Your task to perform on an android device: change the upload size in google photos Image 0: 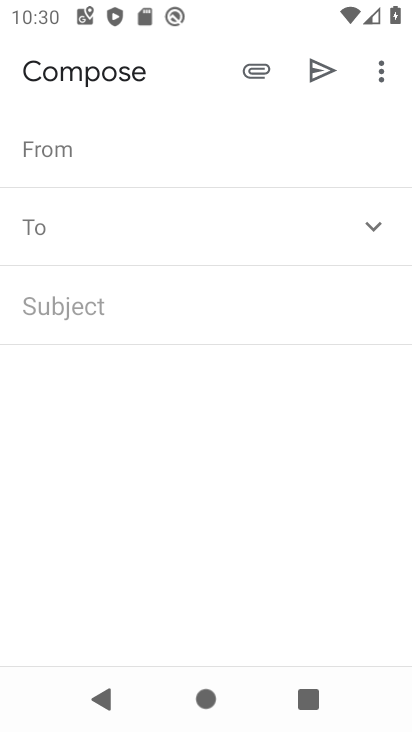
Step 0: press home button
Your task to perform on an android device: change the upload size in google photos Image 1: 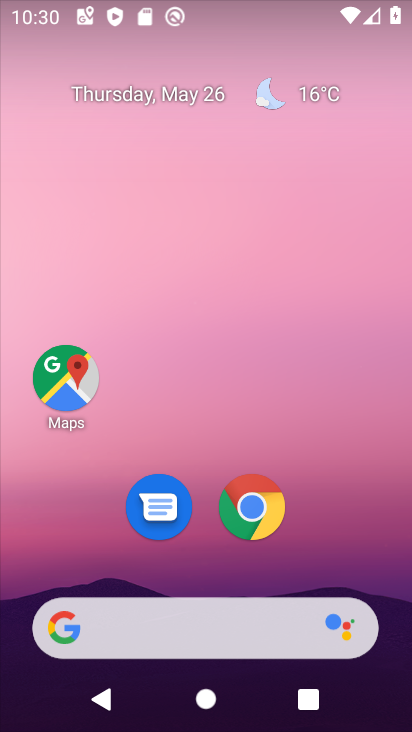
Step 1: drag from (217, 510) to (216, 297)
Your task to perform on an android device: change the upload size in google photos Image 2: 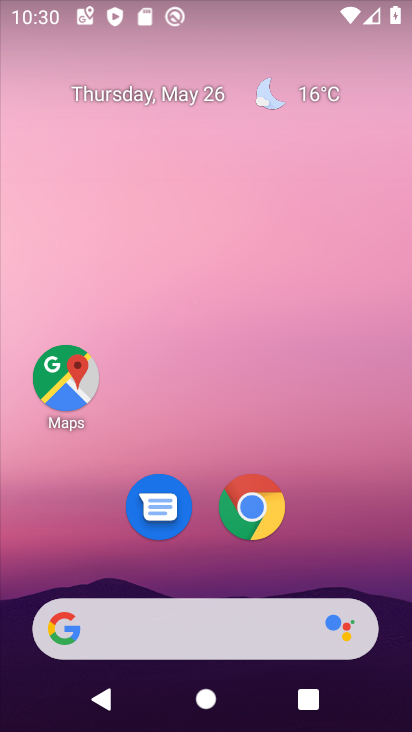
Step 2: drag from (254, 588) to (254, 117)
Your task to perform on an android device: change the upload size in google photos Image 3: 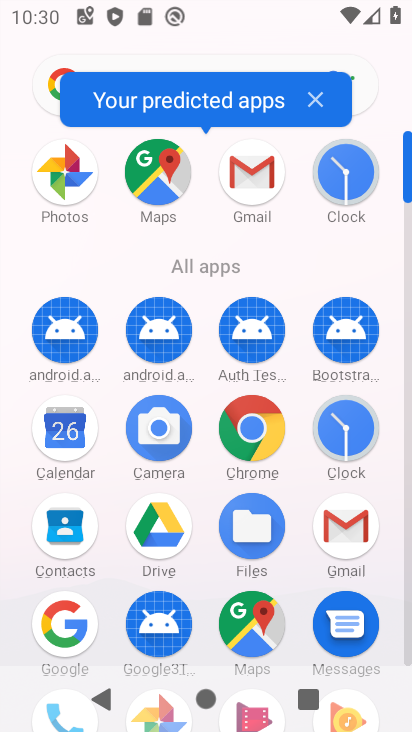
Step 3: drag from (207, 654) to (208, 229)
Your task to perform on an android device: change the upload size in google photos Image 4: 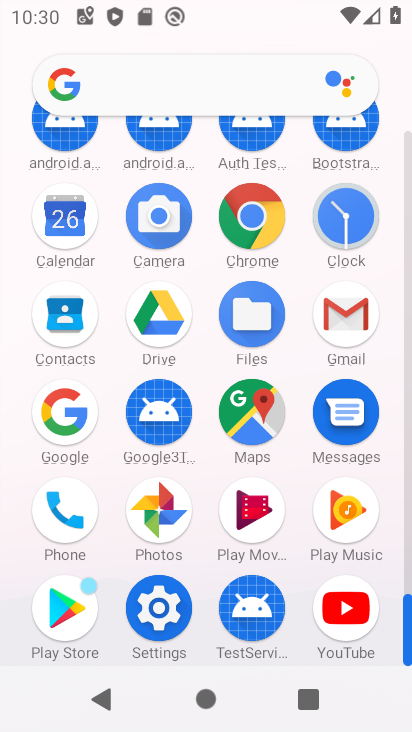
Step 4: drag from (207, 627) to (238, 322)
Your task to perform on an android device: change the upload size in google photos Image 5: 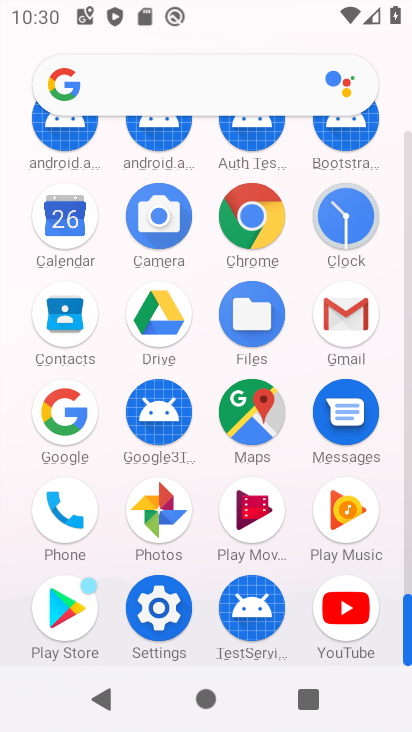
Step 5: click (160, 499)
Your task to perform on an android device: change the upload size in google photos Image 6: 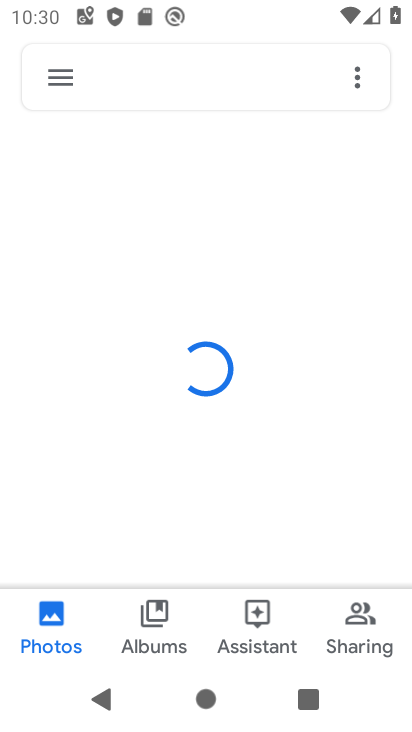
Step 6: click (58, 76)
Your task to perform on an android device: change the upload size in google photos Image 7: 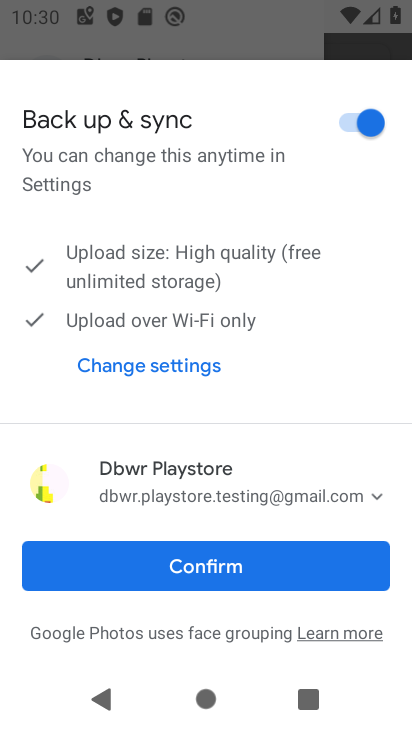
Step 7: click (186, 564)
Your task to perform on an android device: change the upload size in google photos Image 8: 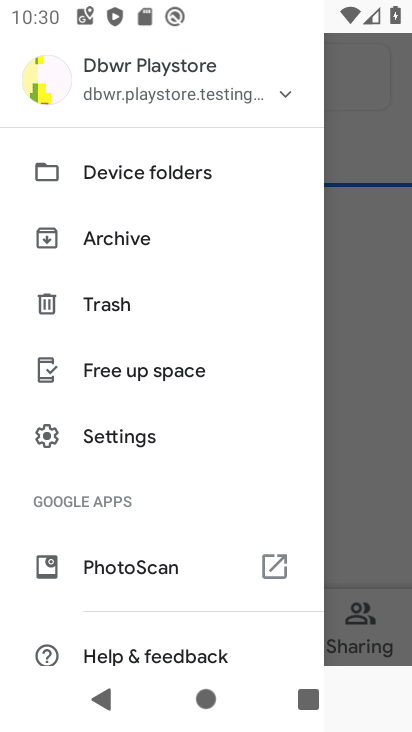
Step 8: click (119, 440)
Your task to perform on an android device: change the upload size in google photos Image 9: 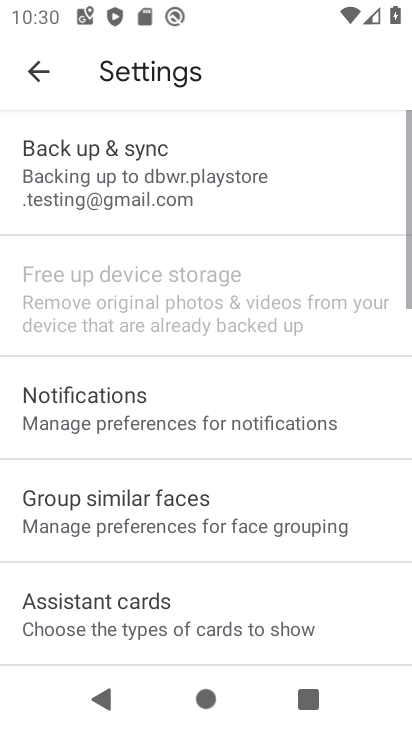
Step 9: click (148, 160)
Your task to perform on an android device: change the upload size in google photos Image 10: 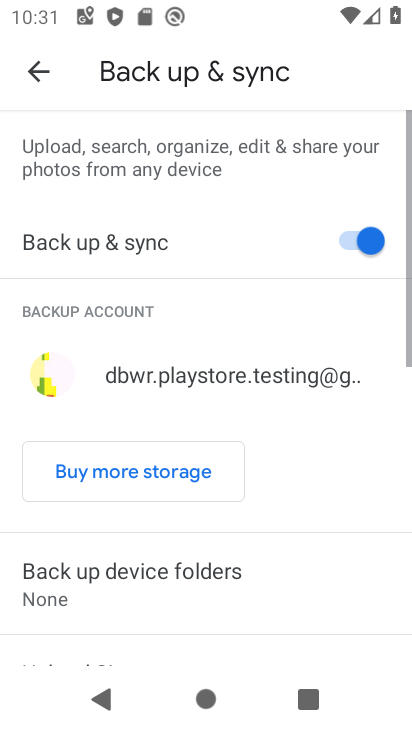
Step 10: drag from (138, 627) to (190, 183)
Your task to perform on an android device: change the upload size in google photos Image 11: 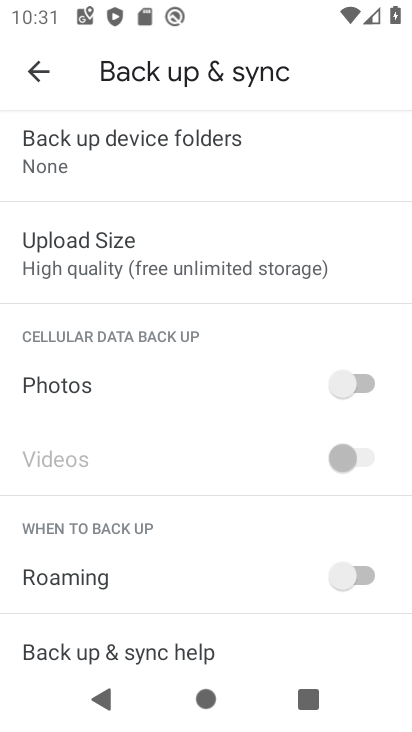
Step 11: click (119, 239)
Your task to perform on an android device: change the upload size in google photos Image 12: 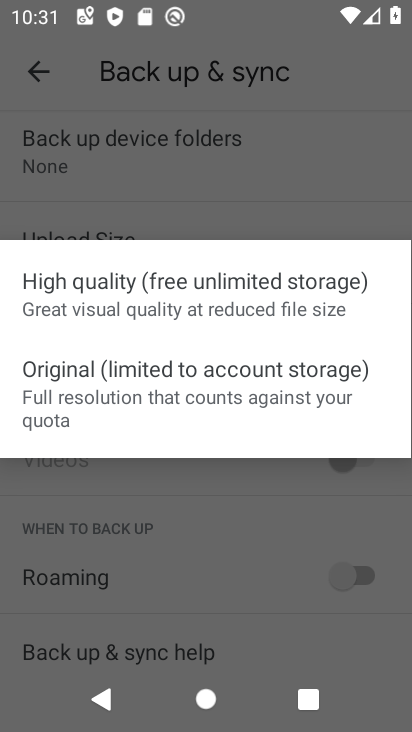
Step 12: click (108, 383)
Your task to perform on an android device: change the upload size in google photos Image 13: 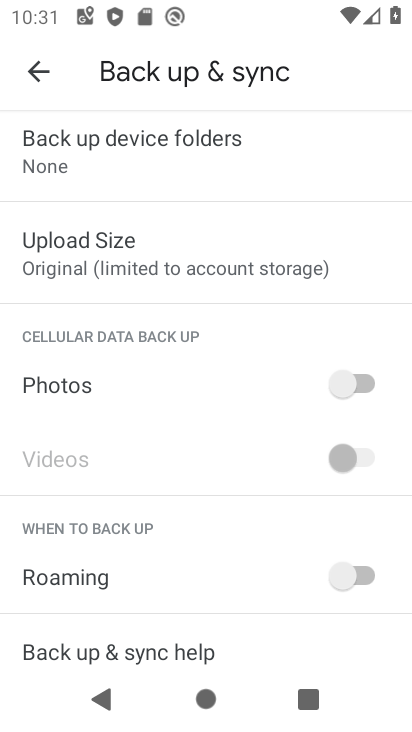
Step 13: task complete